Your task to perform on an android device: Open privacy settings Image 0: 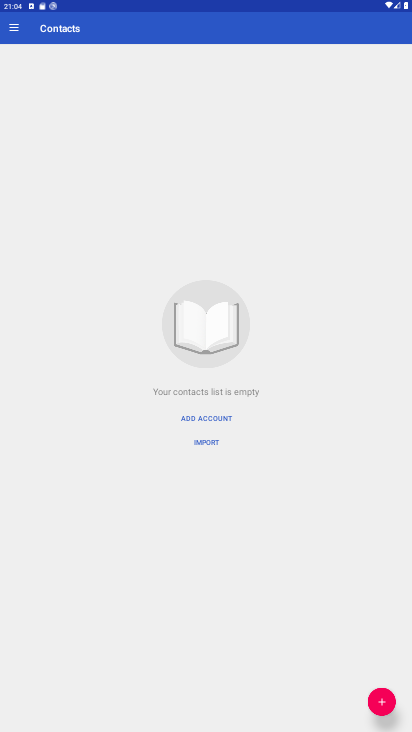
Step 0: press home button
Your task to perform on an android device: Open privacy settings Image 1: 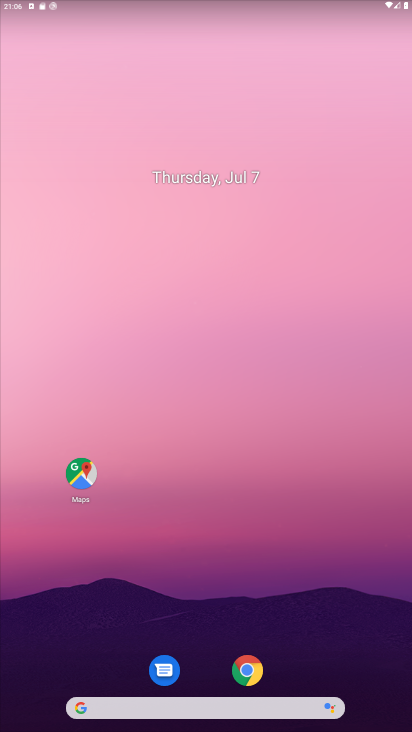
Step 1: drag from (11, 650) to (334, 47)
Your task to perform on an android device: Open privacy settings Image 2: 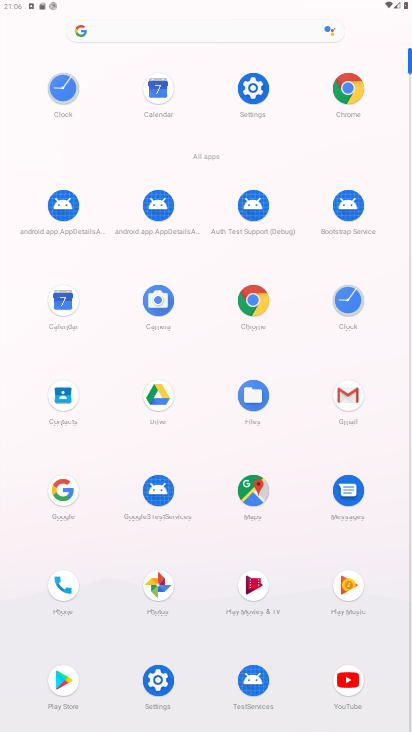
Step 2: click (252, 88)
Your task to perform on an android device: Open privacy settings Image 3: 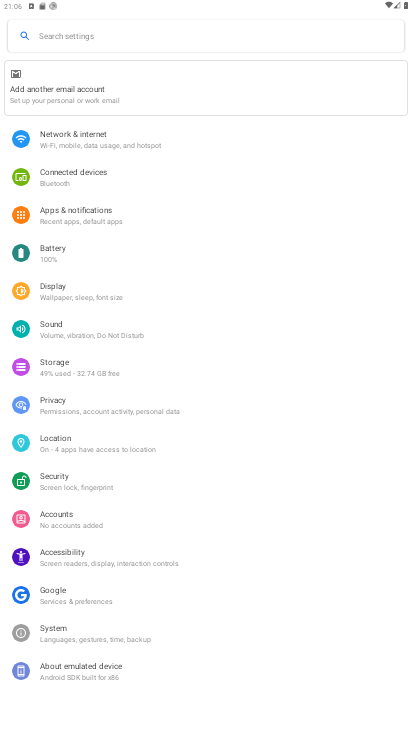
Step 3: click (59, 396)
Your task to perform on an android device: Open privacy settings Image 4: 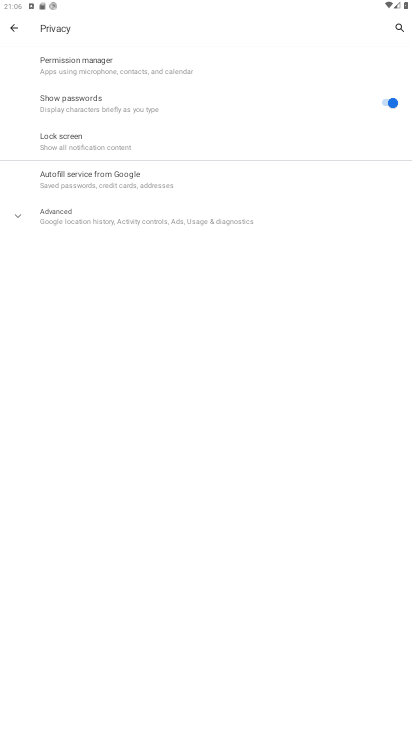
Step 4: task complete